Your task to perform on an android device: change the clock display to digital Image 0: 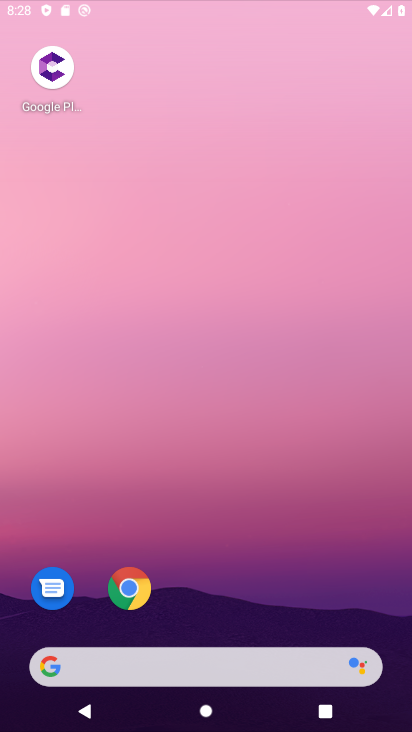
Step 0: drag from (230, 604) to (269, 201)
Your task to perform on an android device: change the clock display to digital Image 1: 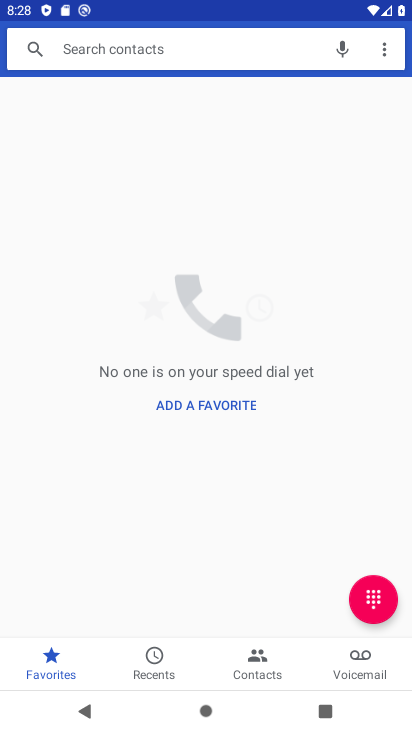
Step 1: press home button
Your task to perform on an android device: change the clock display to digital Image 2: 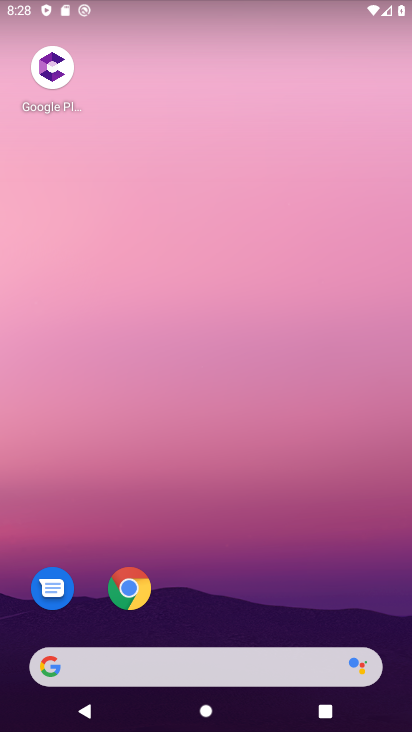
Step 2: drag from (231, 607) to (252, 66)
Your task to perform on an android device: change the clock display to digital Image 3: 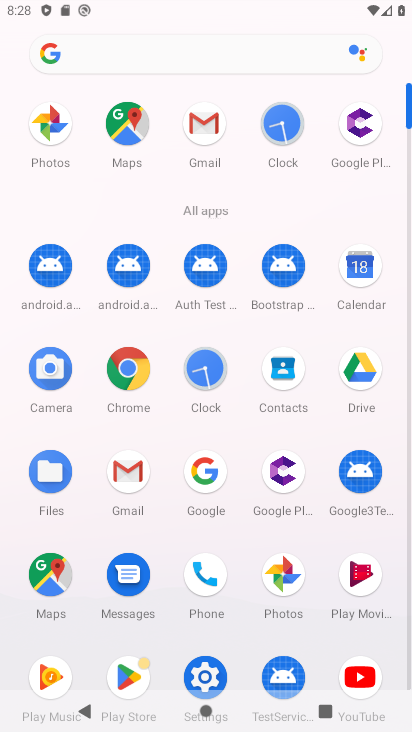
Step 3: click (213, 360)
Your task to perform on an android device: change the clock display to digital Image 4: 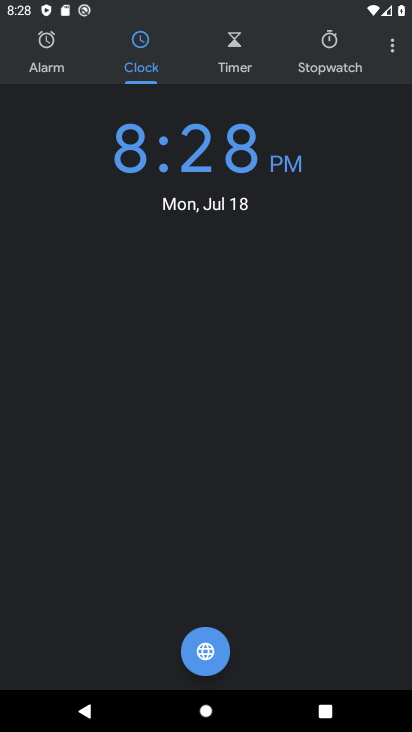
Step 4: click (395, 43)
Your task to perform on an android device: change the clock display to digital Image 5: 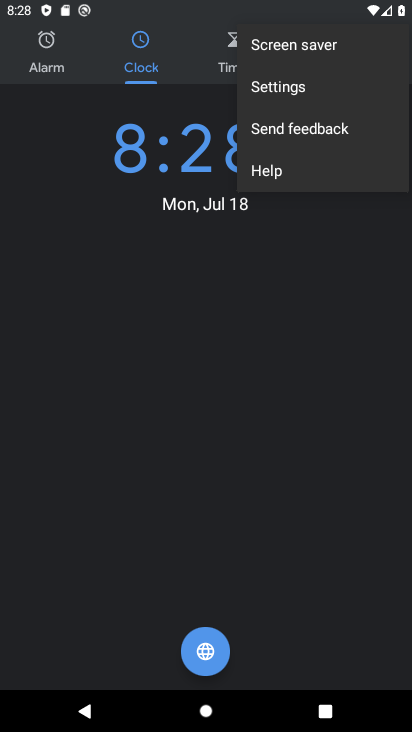
Step 5: click (292, 91)
Your task to perform on an android device: change the clock display to digital Image 6: 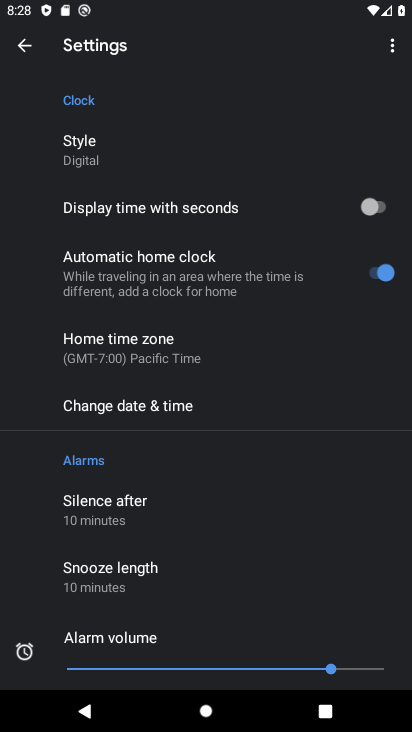
Step 6: task complete